Your task to perform on an android device: Go to network settings Image 0: 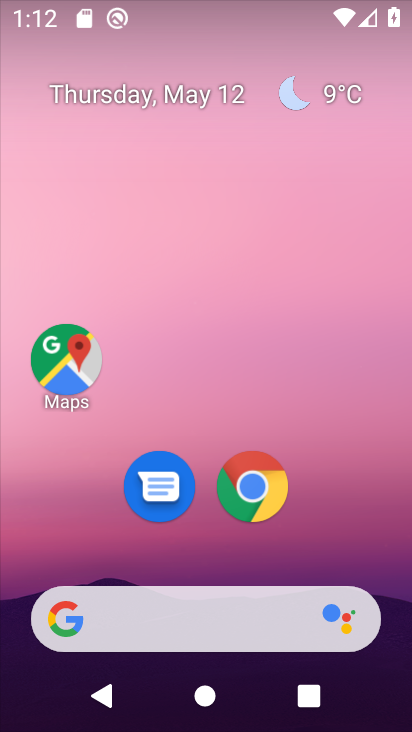
Step 0: drag from (209, 573) to (256, 331)
Your task to perform on an android device: Go to network settings Image 1: 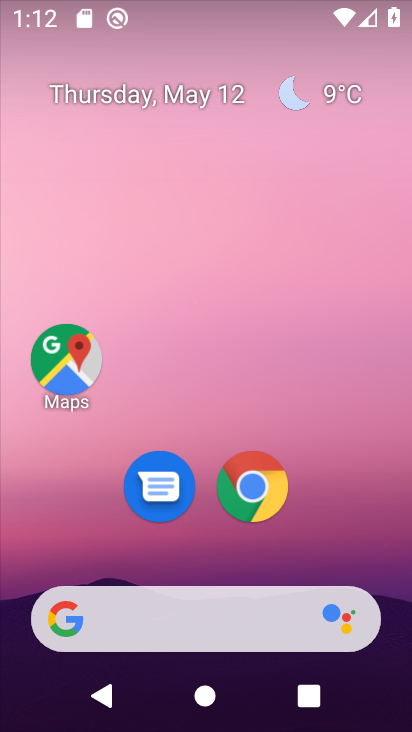
Step 1: drag from (200, 546) to (237, 344)
Your task to perform on an android device: Go to network settings Image 2: 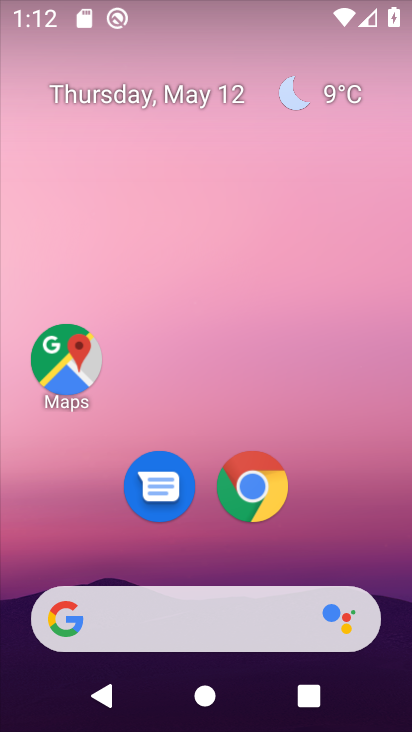
Step 2: drag from (222, 598) to (263, 294)
Your task to perform on an android device: Go to network settings Image 3: 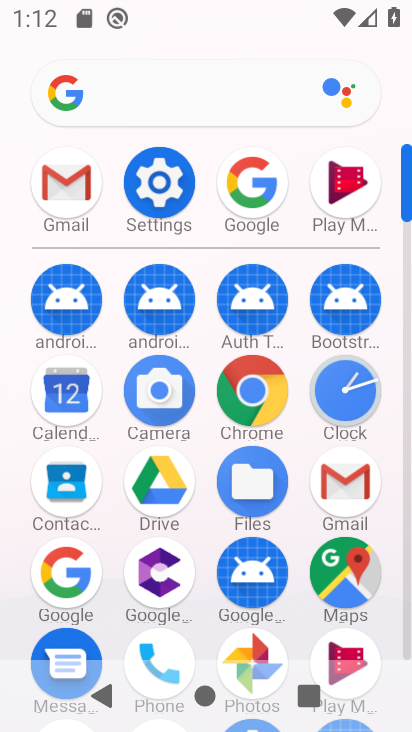
Step 3: click (154, 194)
Your task to perform on an android device: Go to network settings Image 4: 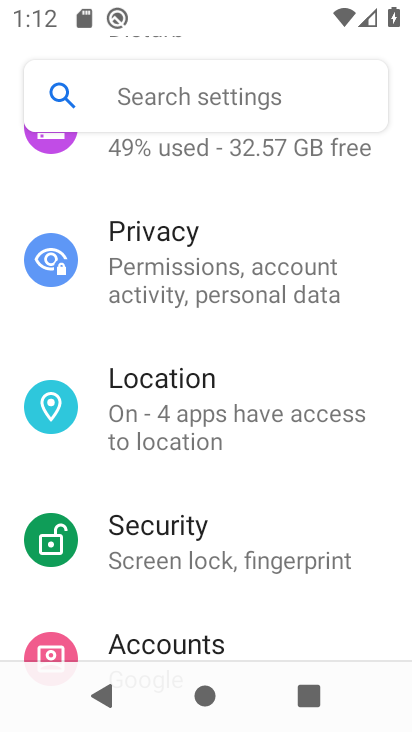
Step 4: drag from (240, 168) to (263, 457)
Your task to perform on an android device: Go to network settings Image 5: 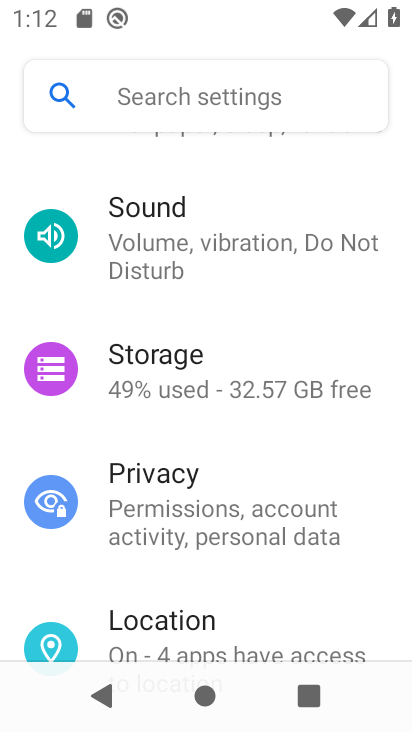
Step 5: drag from (215, 208) to (260, 523)
Your task to perform on an android device: Go to network settings Image 6: 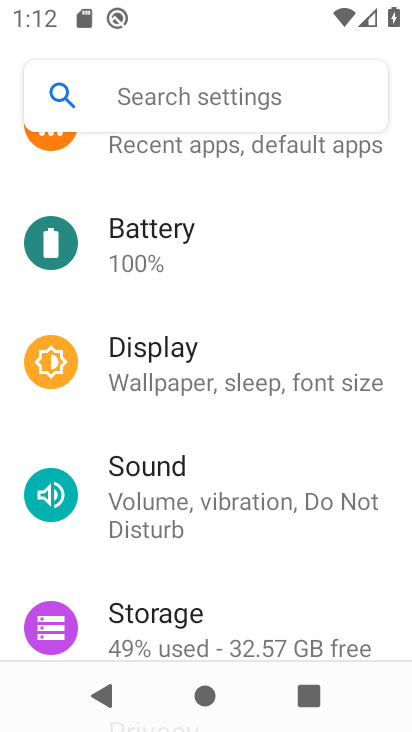
Step 6: drag from (262, 213) to (290, 527)
Your task to perform on an android device: Go to network settings Image 7: 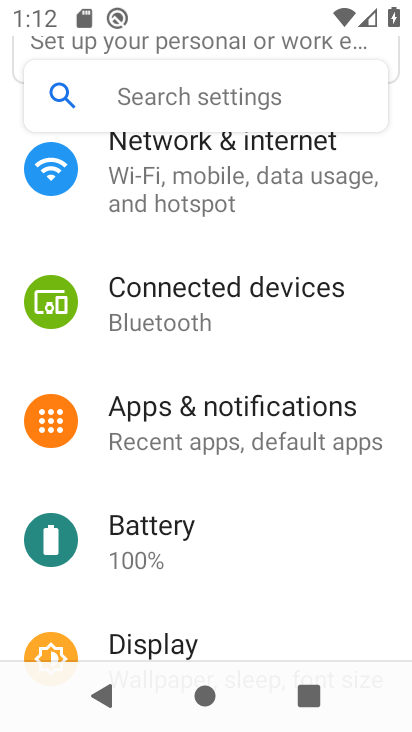
Step 7: click (209, 200)
Your task to perform on an android device: Go to network settings Image 8: 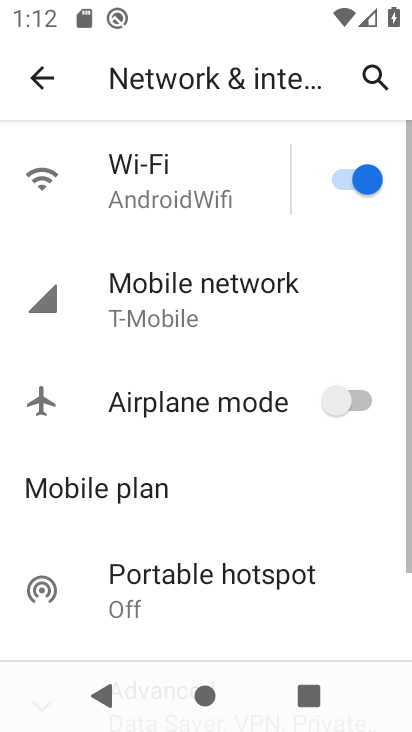
Step 8: drag from (221, 560) to (236, 214)
Your task to perform on an android device: Go to network settings Image 9: 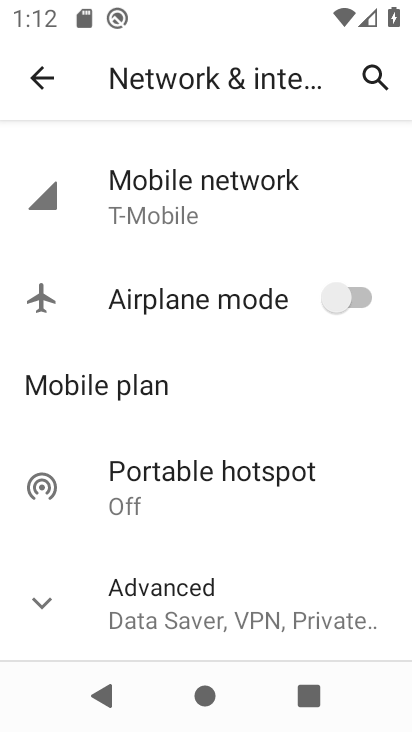
Step 9: click (213, 587)
Your task to perform on an android device: Go to network settings Image 10: 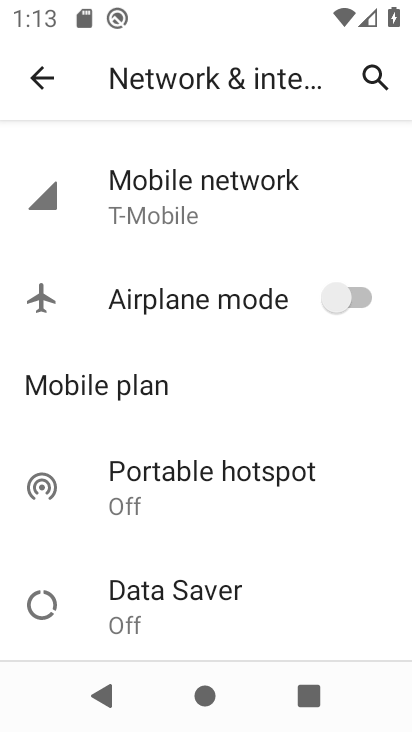
Step 10: task complete